Your task to perform on an android device: turn on javascript in the chrome app Image 0: 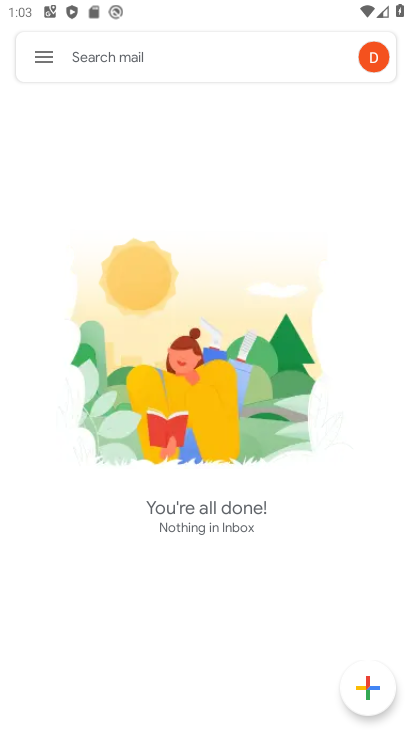
Step 0: press home button
Your task to perform on an android device: turn on javascript in the chrome app Image 1: 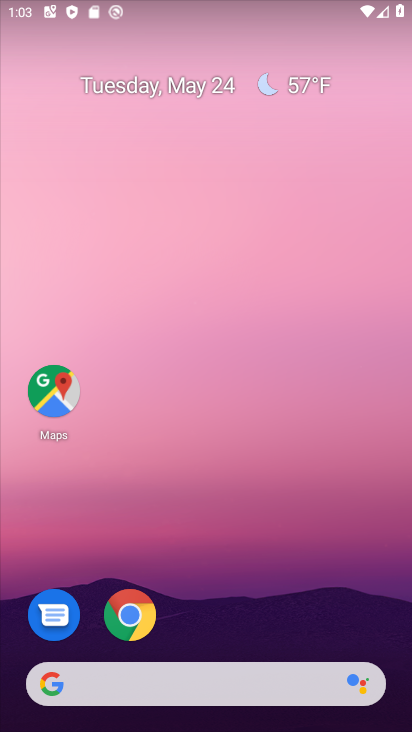
Step 1: click (129, 620)
Your task to perform on an android device: turn on javascript in the chrome app Image 2: 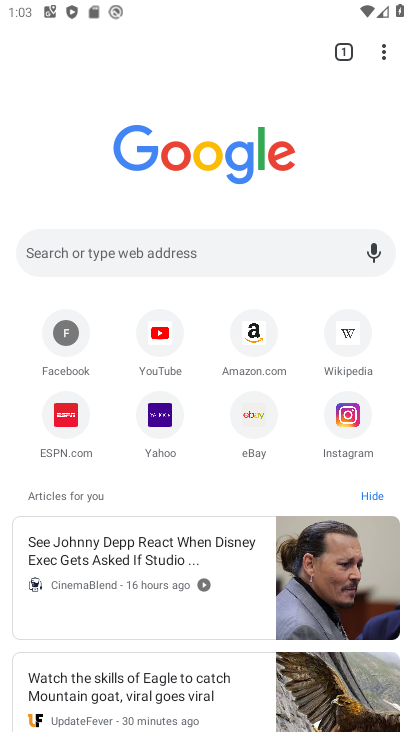
Step 2: click (386, 43)
Your task to perform on an android device: turn on javascript in the chrome app Image 3: 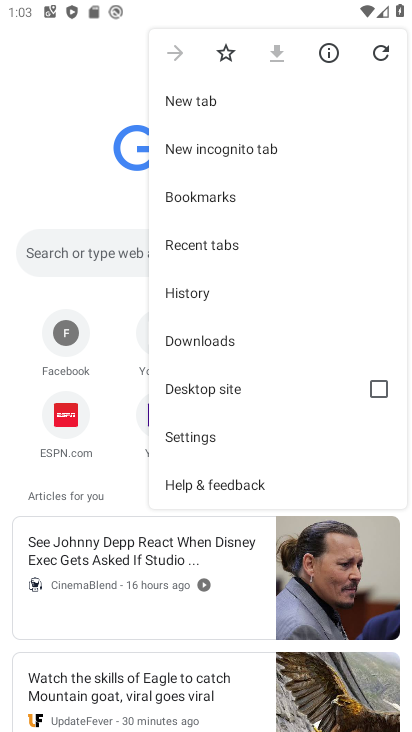
Step 3: click (172, 432)
Your task to perform on an android device: turn on javascript in the chrome app Image 4: 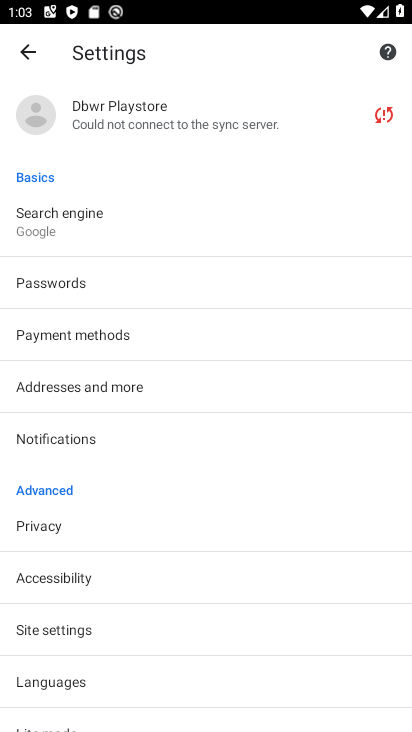
Step 4: click (39, 638)
Your task to perform on an android device: turn on javascript in the chrome app Image 5: 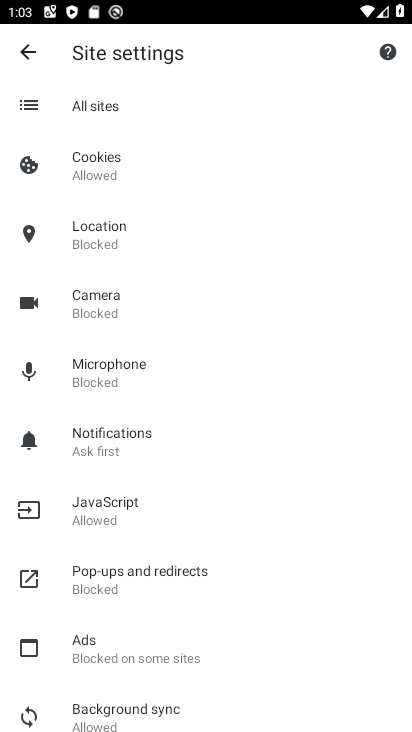
Step 5: click (72, 527)
Your task to perform on an android device: turn on javascript in the chrome app Image 6: 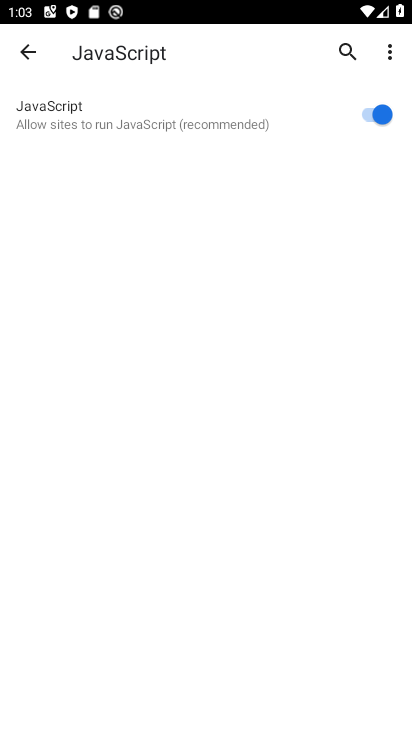
Step 6: task complete